Your task to perform on an android device: Open Chrome and go to settings Image 0: 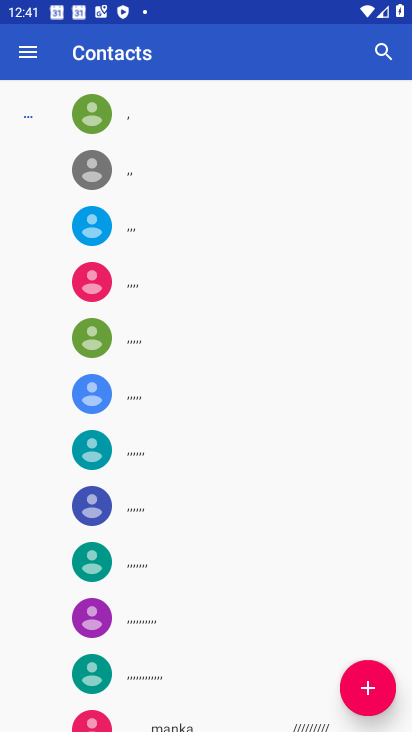
Step 0: press home button
Your task to perform on an android device: Open Chrome and go to settings Image 1: 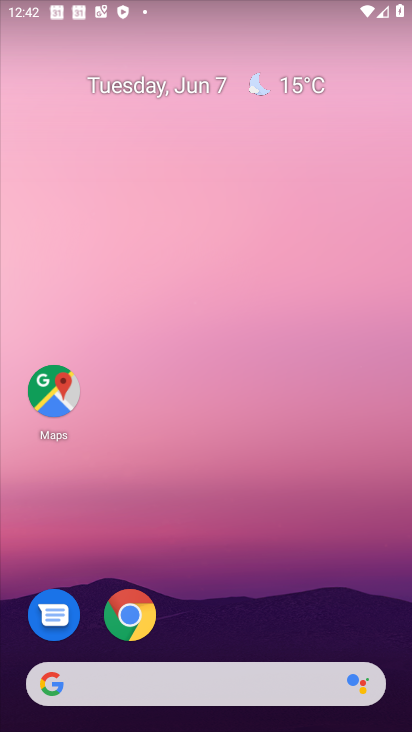
Step 1: drag from (193, 632) to (217, 228)
Your task to perform on an android device: Open Chrome and go to settings Image 2: 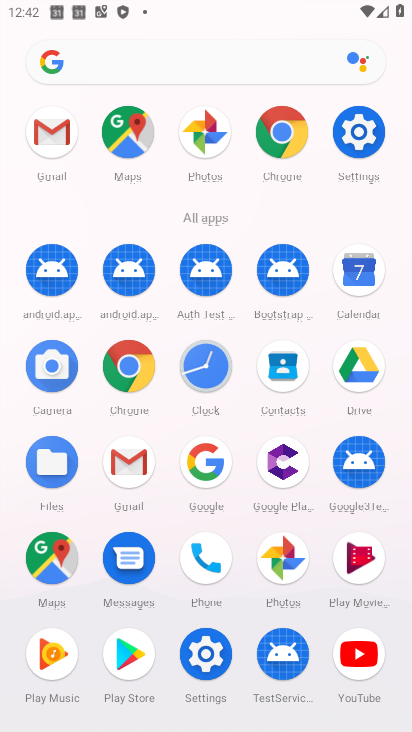
Step 2: click (279, 142)
Your task to perform on an android device: Open Chrome and go to settings Image 3: 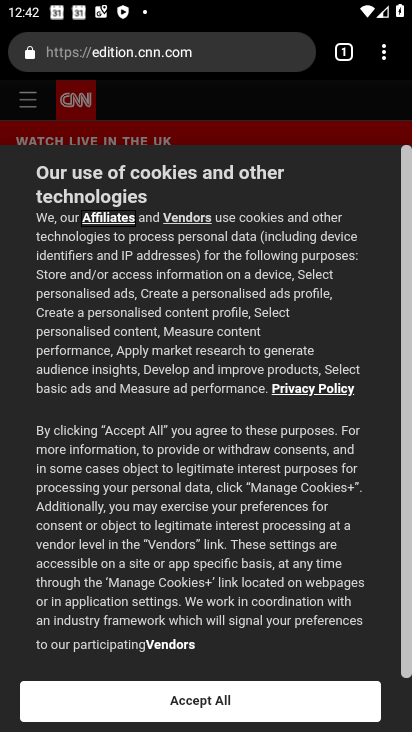
Step 3: click (383, 56)
Your task to perform on an android device: Open Chrome and go to settings Image 4: 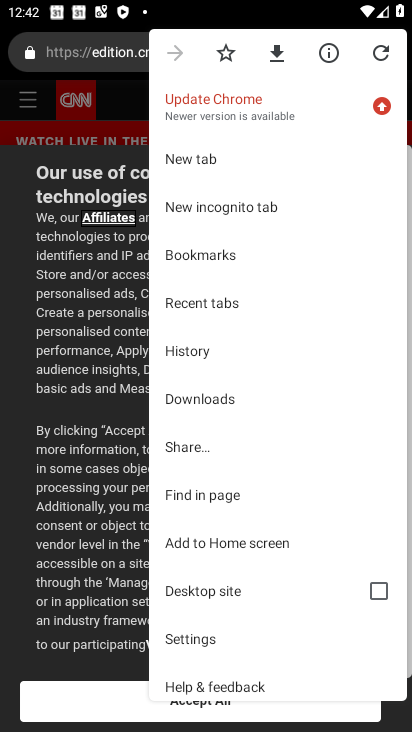
Step 4: click (199, 642)
Your task to perform on an android device: Open Chrome and go to settings Image 5: 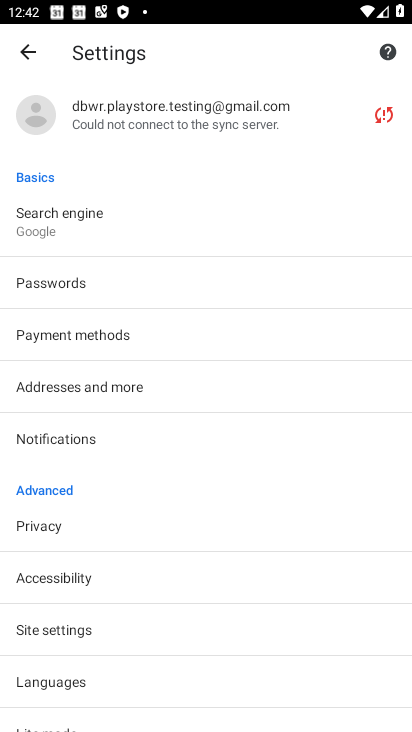
Step 5: task complete